Your task to perform on an android device: Show me popular videos on Youtube Image 0: 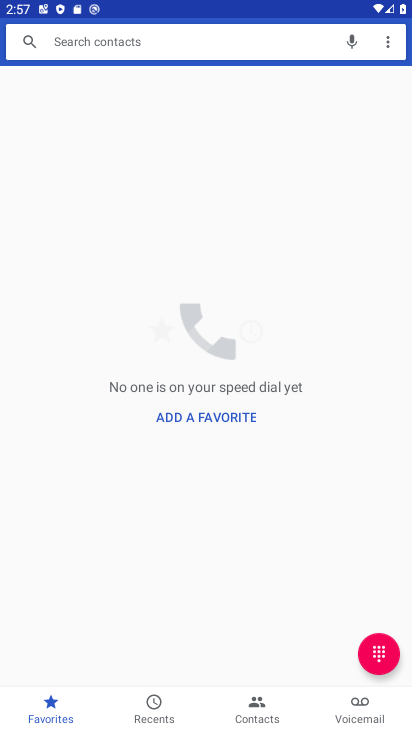
Step 0: press home button
Your task to perform on an android device: Show me popular videos on Youtube Image 1: 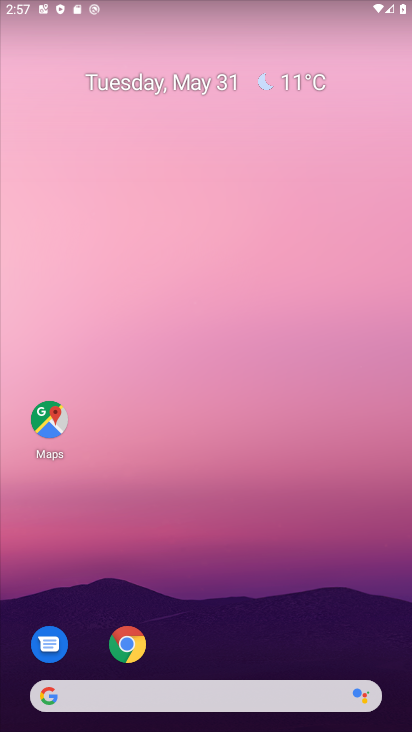
Step 1: drag from (270, 648) to (394, 249)
Your task to perform on an android device: Show me popular videos on Youtube Image 2: 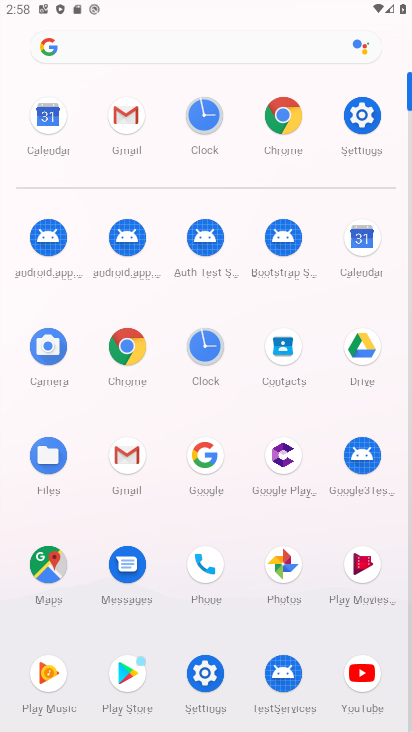
Step 2: click (358, 674)
Your task to perform on an android device: Show me popular videos on Youtube Image 3: 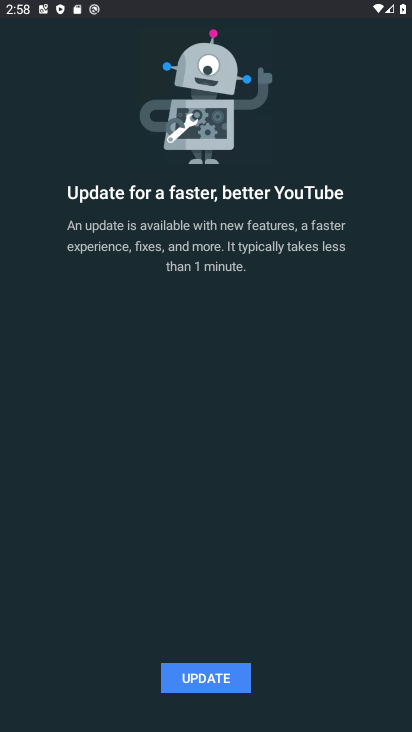
Step 3: click (190, 682)
Your task to perform on an android device: Show me popular videos on Youtube Image 4: 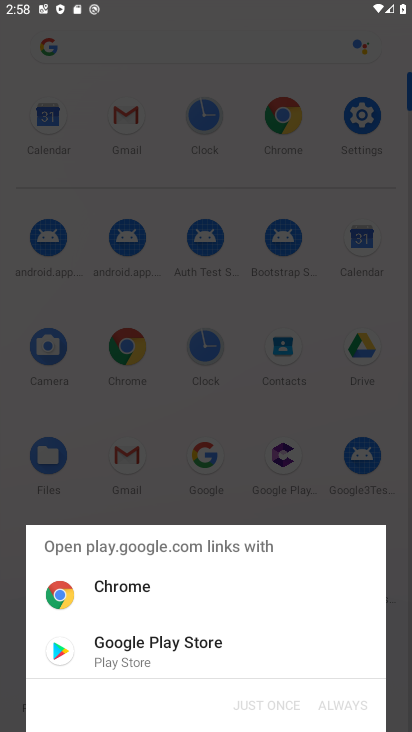
Step 4: click (172, 646)
Your task to perform on an android device: Show me popular videos on Youtube Image 5: 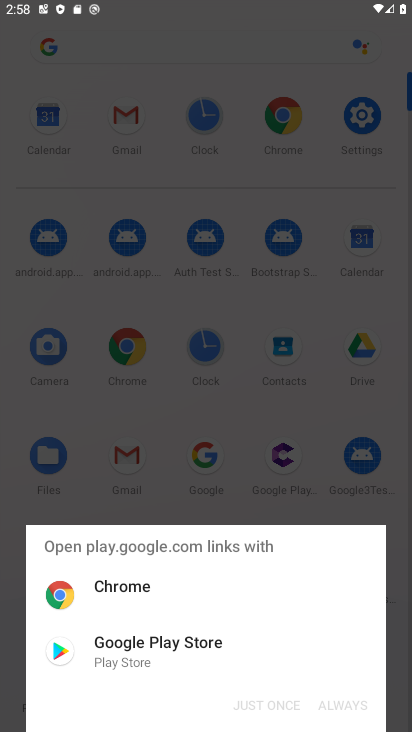
Step 5: click (175, 641)
Your task to perform on an android device: Show me popular videos on Youtube Image 6: 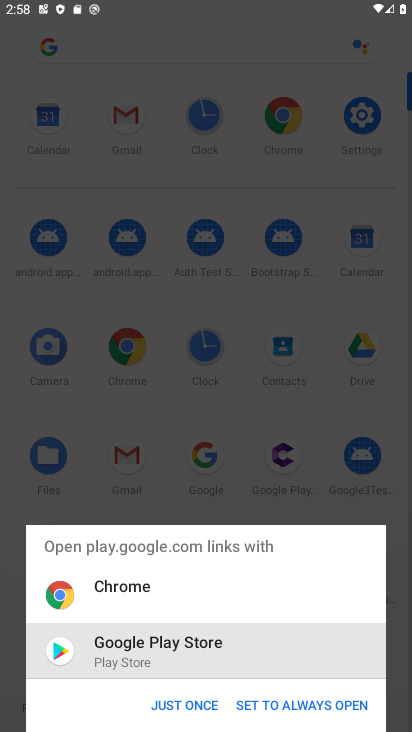
Step 6: click (252, 708)
Your task to perform on an android device: Show me popular videos on Youtube Image 7: 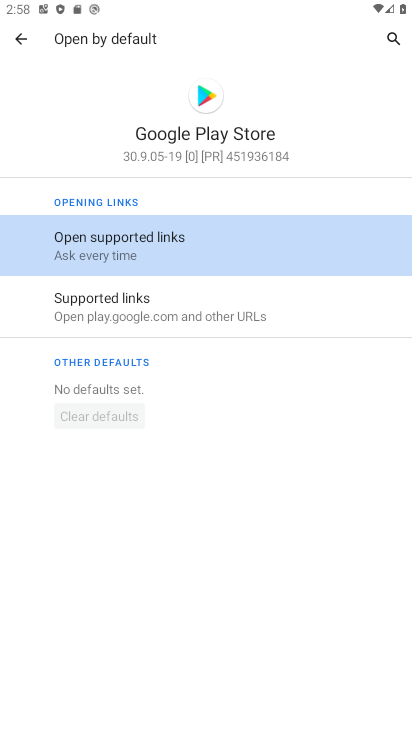
Step 7: click (255, 241)
Your task to perform on an android device: Show me popular videos on Youtube Image 8: 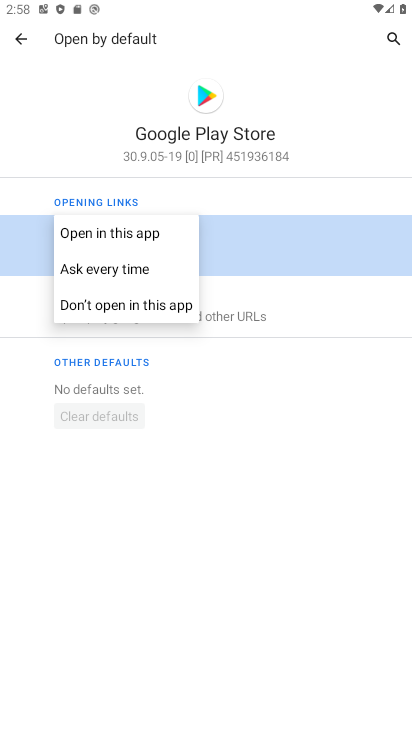
Step 8: click (82, 236)
Your task to perform on an android device: Show me popular videos on Youtube Image 9: 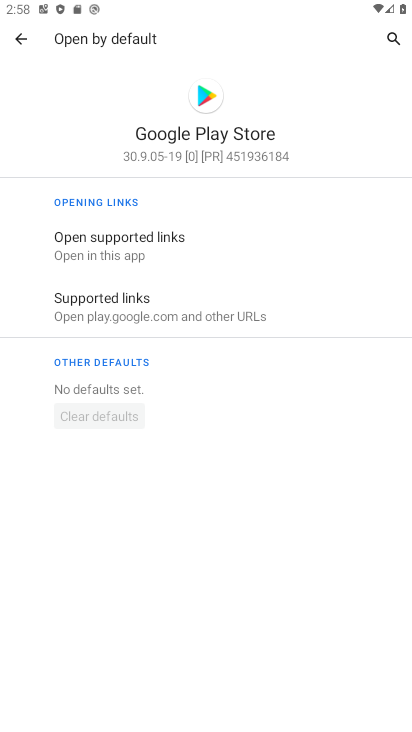
Step 9: click (264, 120)
Your task to perform on an android device: Show me popular videos on Youtube Image 10: 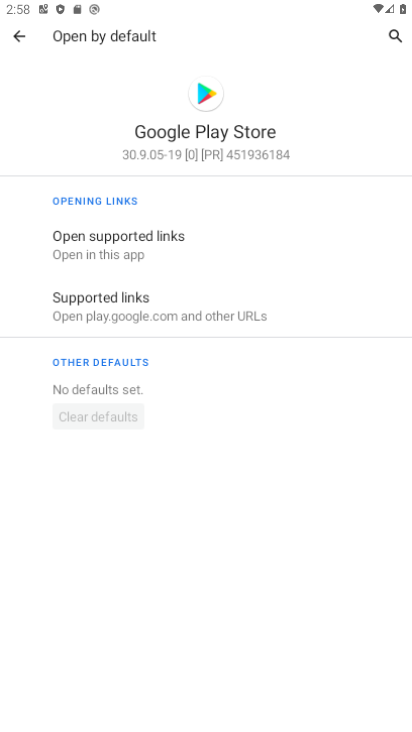
Step 10: click (161, 304)
Your task to perform on an android device: Show me popular videos on Youtube Image 11: 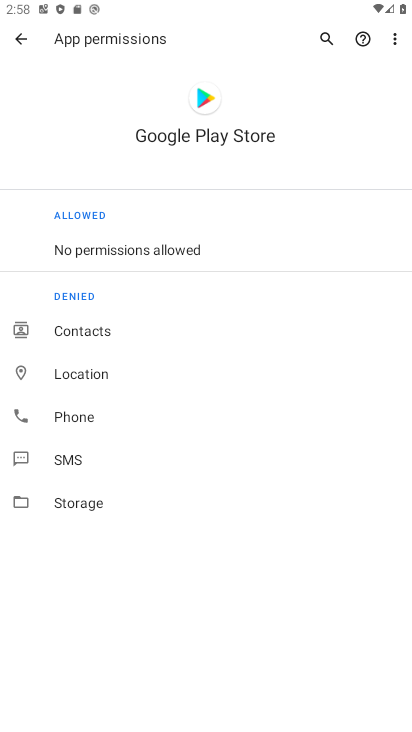
Step 11: task complete